Your task to perform on an android device: toggle sleep mode Image 0: 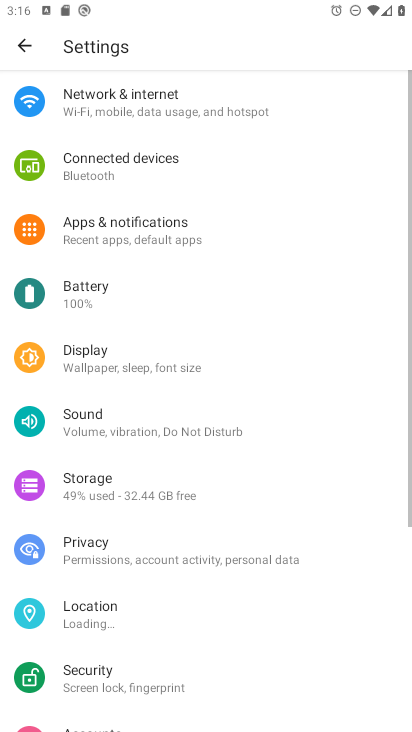
Step 0: click (96, 353)
Your task to perform on an android device: toggle sleep mode Image 1: 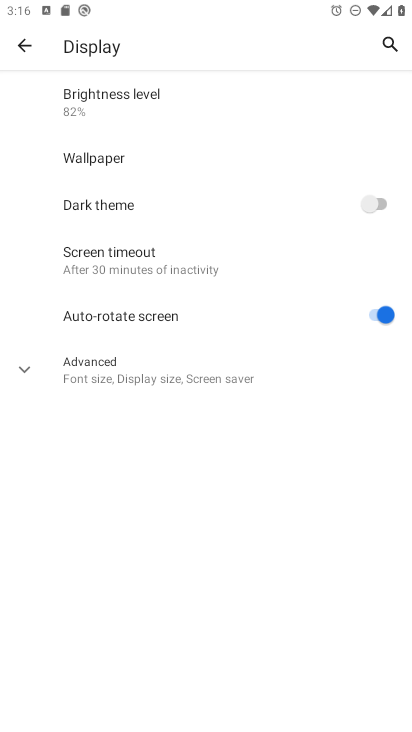
Step 1: click (131, 372)
Your task to perform on an android device: toggle sleep mode Image 2: 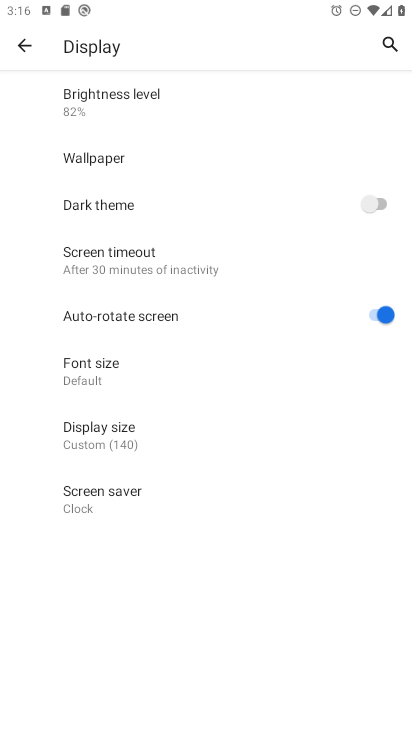
Step 2: task complete